Your task to perform on an android device: Open Google Chrome Image 0: 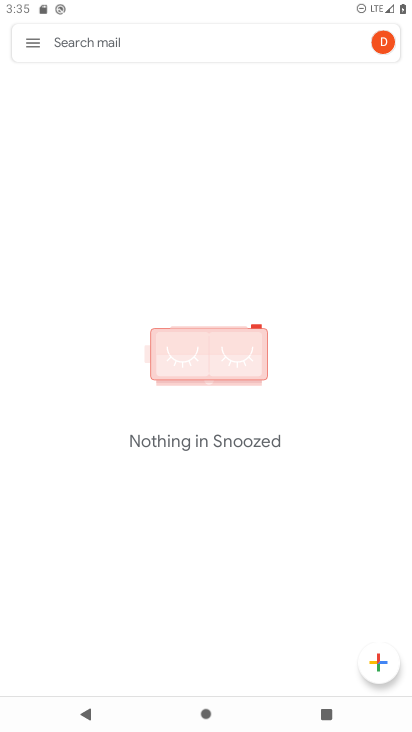
Step 0: press home button
Your task to perform on an android device: Open Google Chrome Image 1: 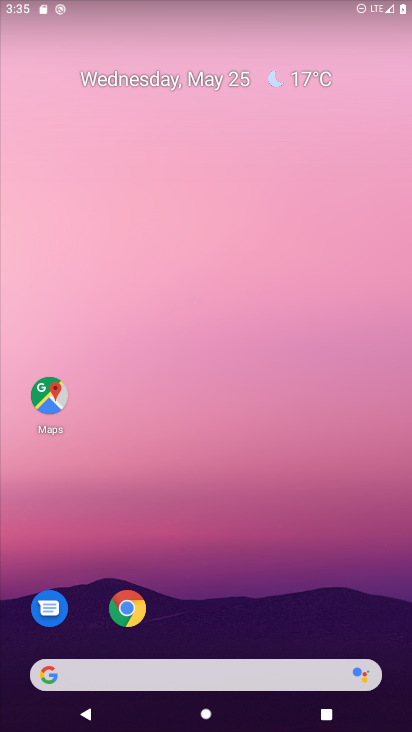
Step 1: click (127, 610)
Your task to perform on an android device: Open Google Chrome Image 2: 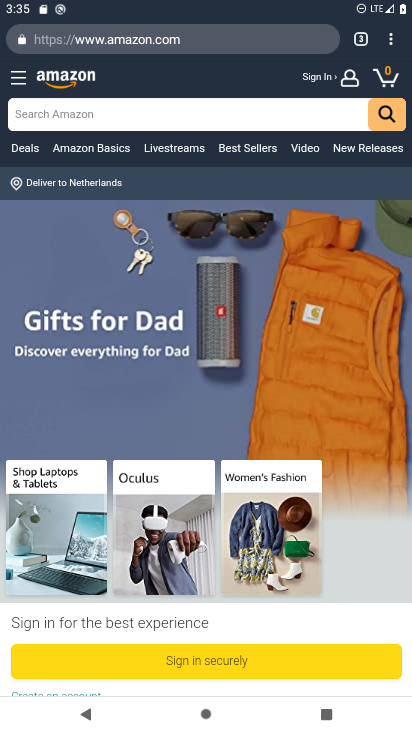
Step 2: task complete